Your task to perform on an android device: Go to notification settings Image 0: 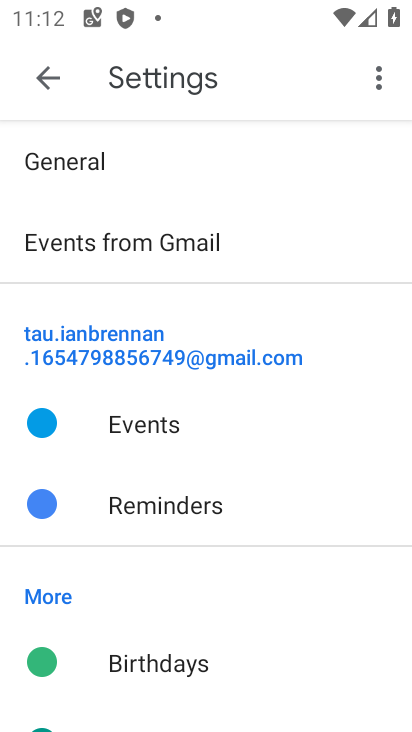
Step 0: press home button
Your task to perform on an android device: Go to notification settings Image 1: 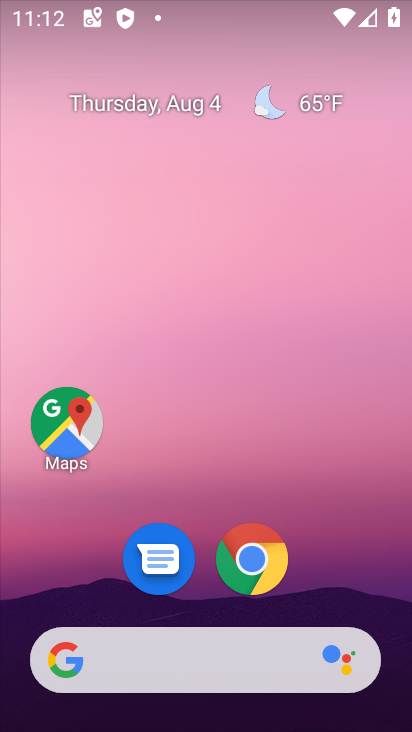
Step 1: drag from (313, 575) to (281, 87)
Your task to perform on an android device: Go to notification settings Image 2: 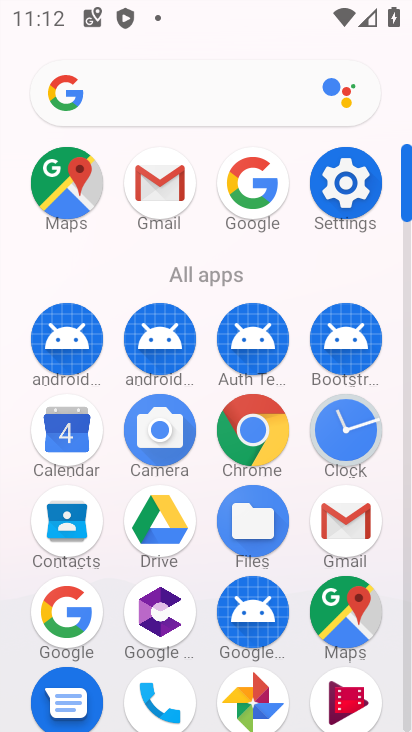
Step 2: click (356, 193)
Your task to perform on an android device: Go to notification settings Image 3: 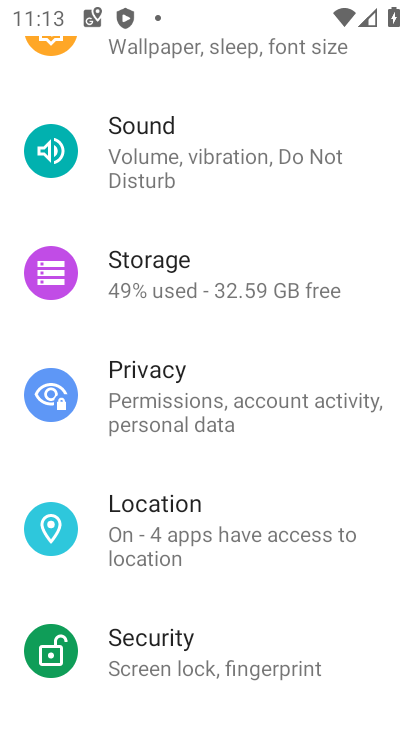
Step 3: drag from (281, 578) to (214, 258)
Your task to perform on an android device: Go to notification settings Image 4: 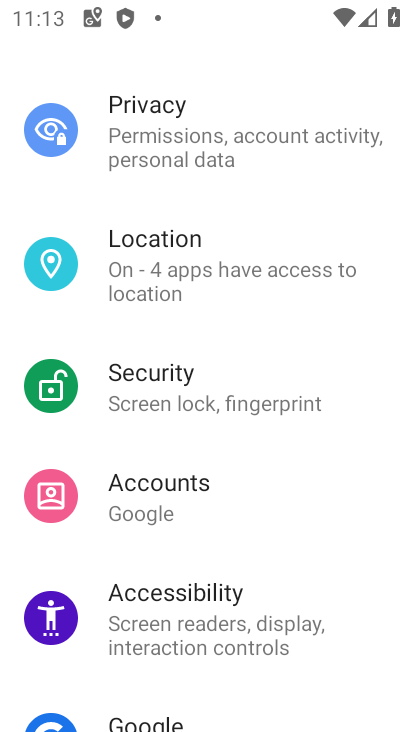
Step 4: drag from (308, 592) to (327, 171)
Your task to perform on an android device: Go to notification settings Image 5: 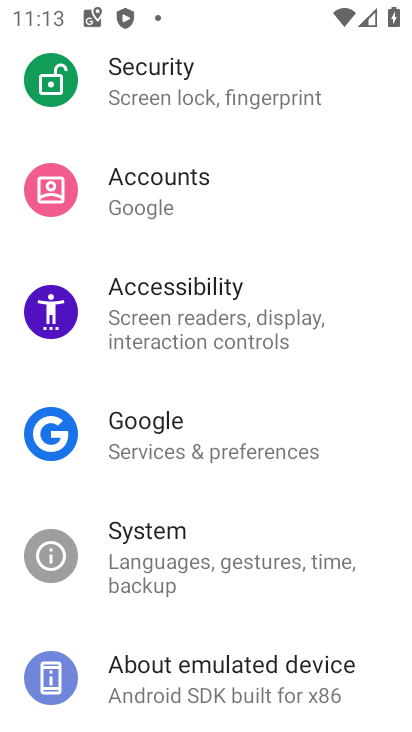
Step 5: drag from (326, 496) to (308, 653)
Your task to perform on an android device: Go to notification settings Image 6: 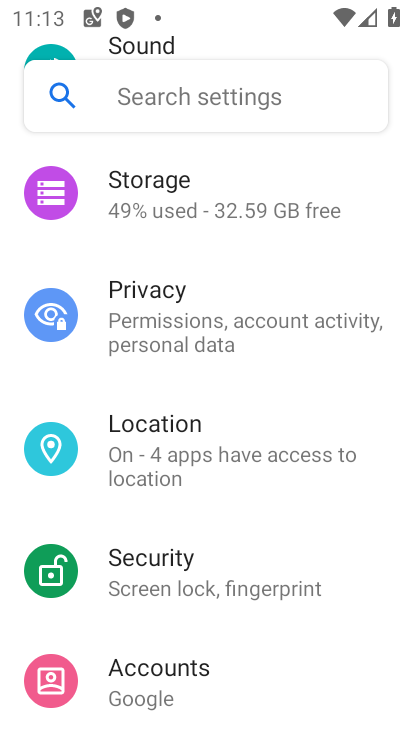
Step 6: drag from (220, 258) to (148, 720)
Your task to perform on an android device: Go to notification settings Image 7: 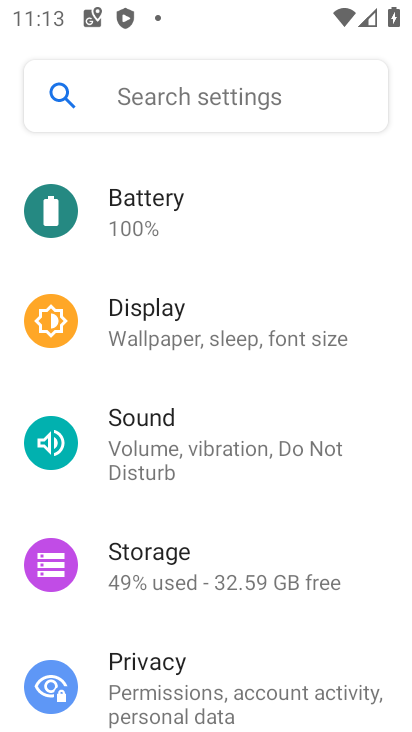
Step 7: drag from (142, 396) to (210, 578)
Your task to perform on an android device: Go to notification settings Image 8: 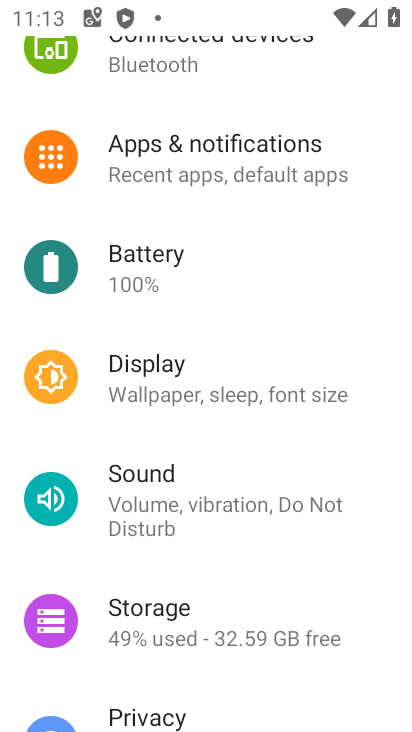
Step 8: click (171, 149)
Your task to perform on an android device: Go to notification settings Image 9: 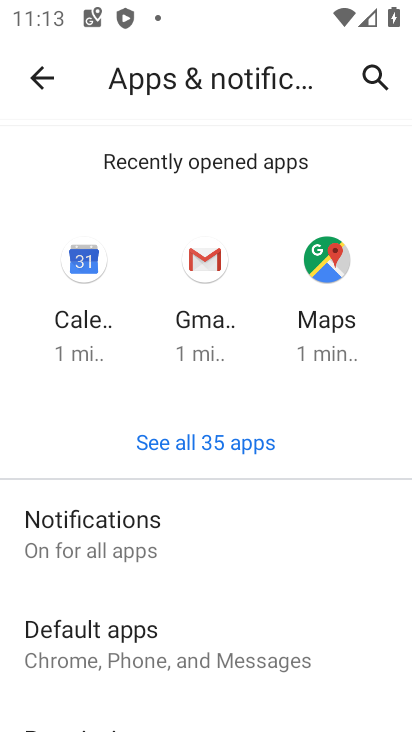
Step 9: click (85, 536)
Your task to perform on an android device: Go to notification settings Image 10: 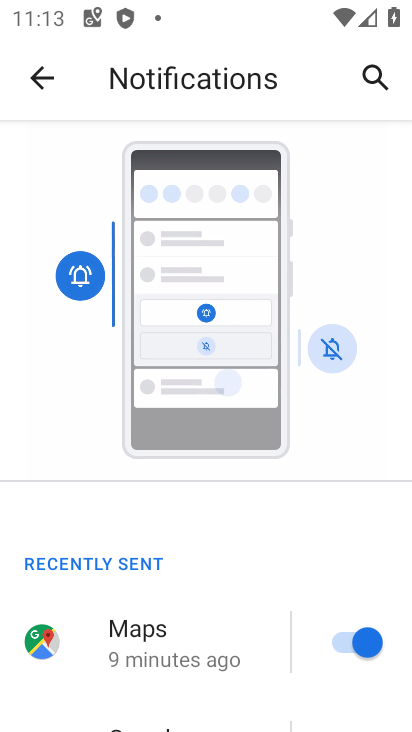
Step 10: task complete